Your task to perform on an android device: Is it going to rain this weekend? Image 0: 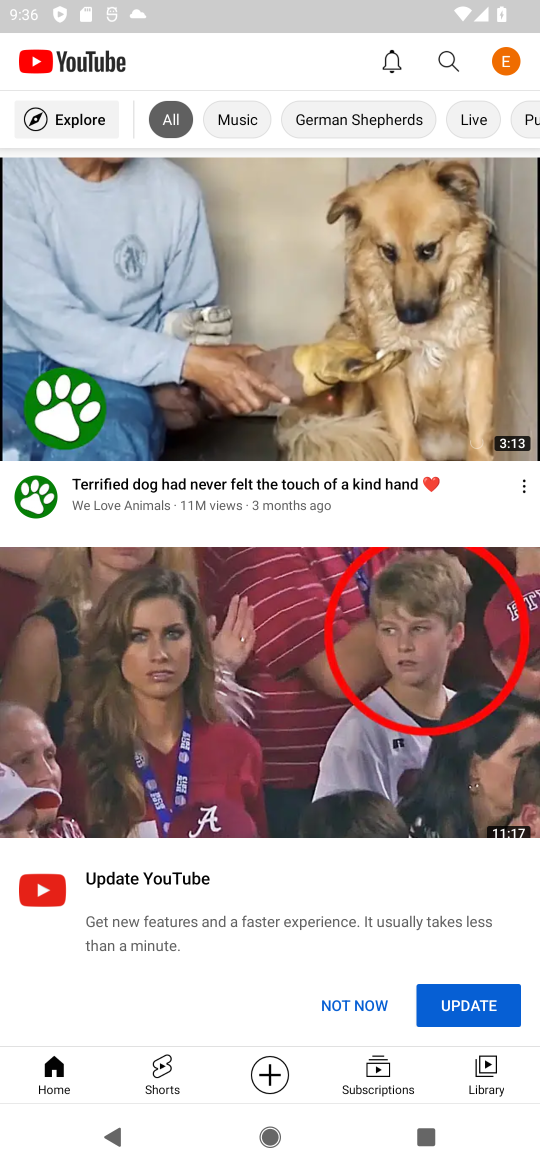
Step 0: press home button
Your task to perform on an android device: Is it going to rain this weekend? Image 1: 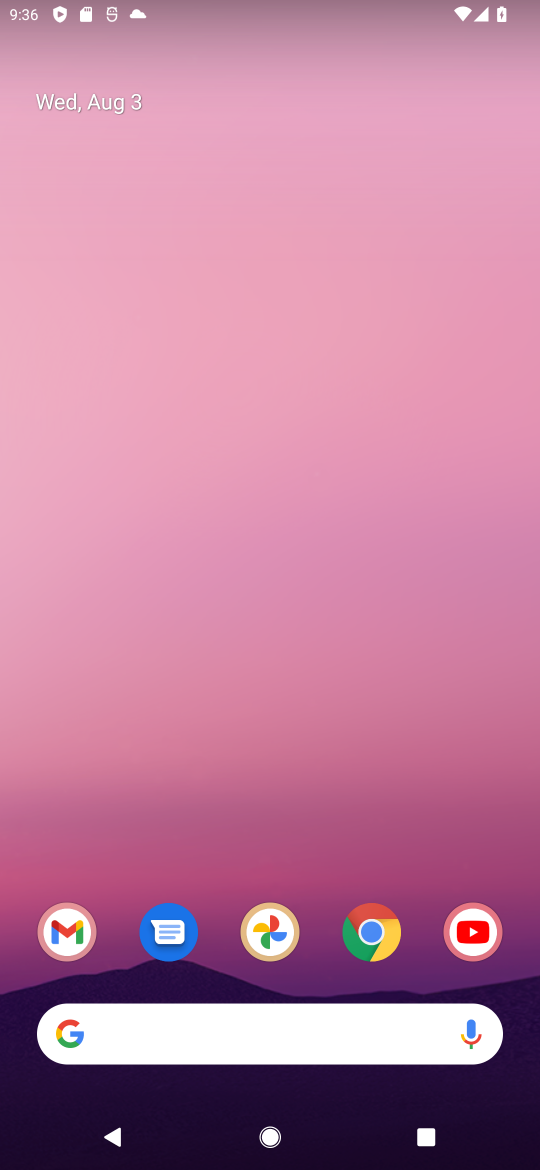
Step 1: drag from (319, 889) to (343, 49)
Your task to perform on an android device: Is it going to rain this weekend? Image 2: 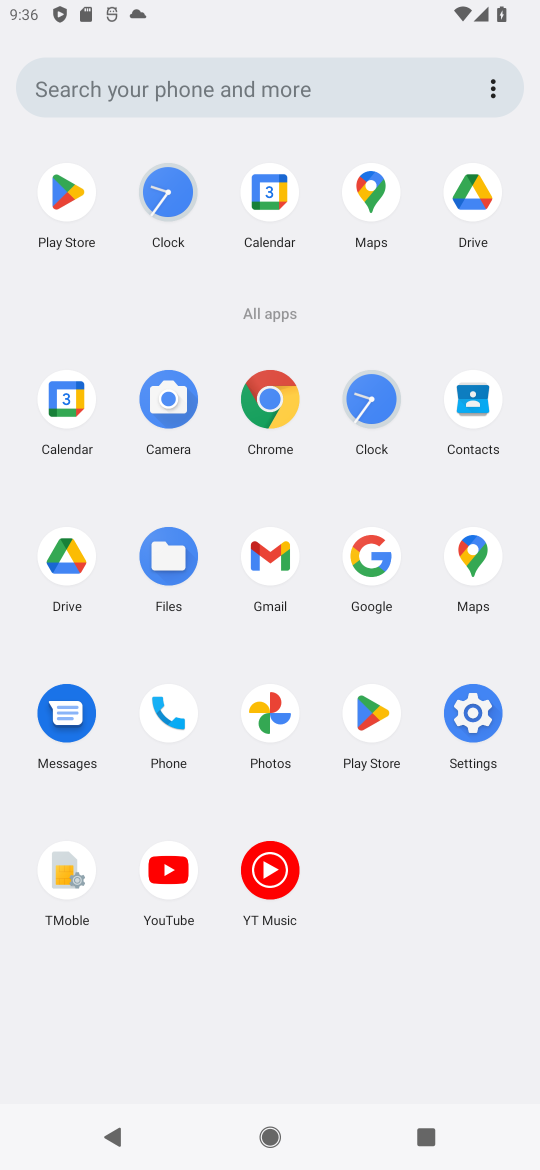
Step 2: click (282, 406)
Your task to perform on an android device: Is it going to rain this weekend? Image 3: 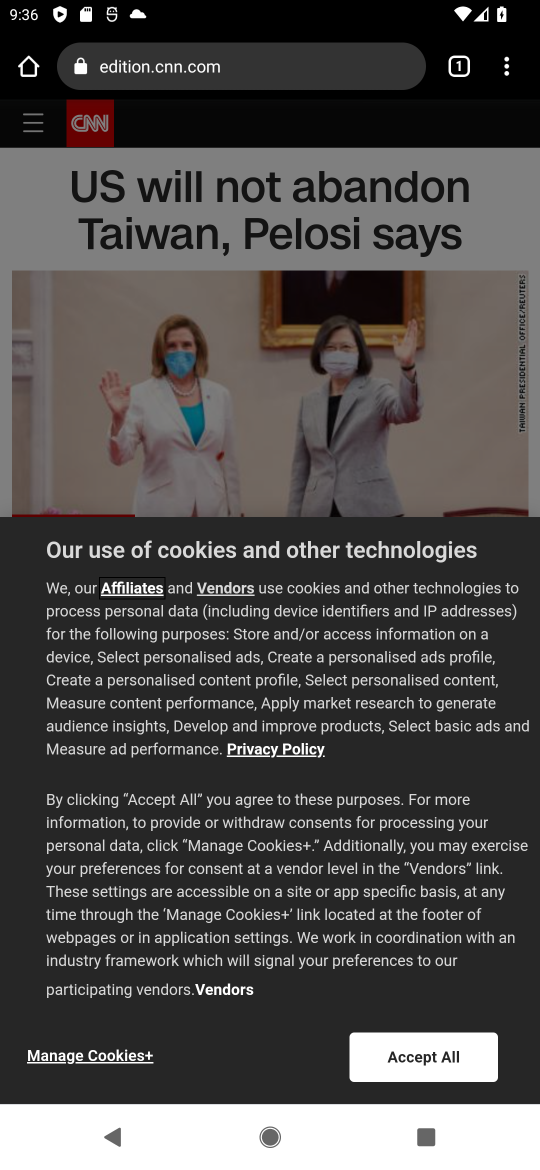
Step 3: click (323, 80)
Your task to perform on an android device: Is it going to rain this weekend? Image 4: 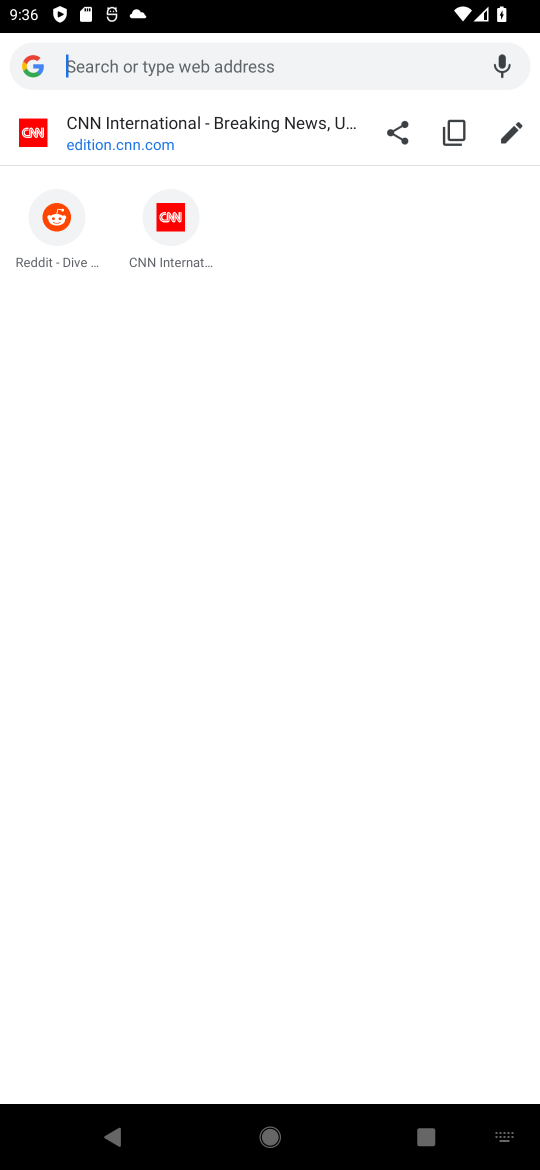
Step 4: type "Is it going to rain this weekend?"
Your task to perform on an android device: Is it going to rain this weekend? Image 5: 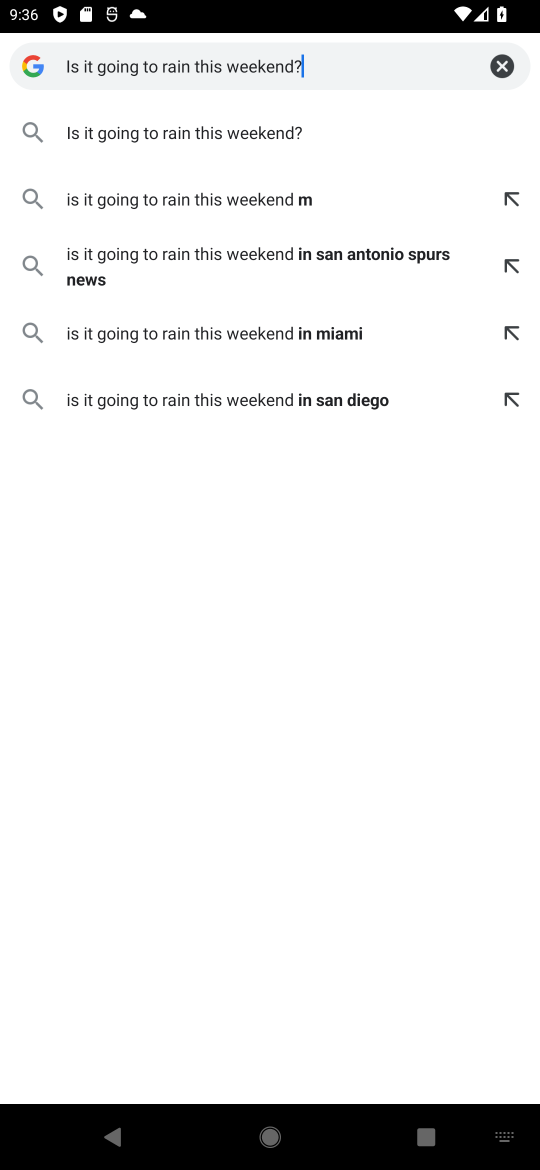
Step 5: click (315, 133)
Your task to perform on an android device: Is it going to rain this weekend? Image 6: 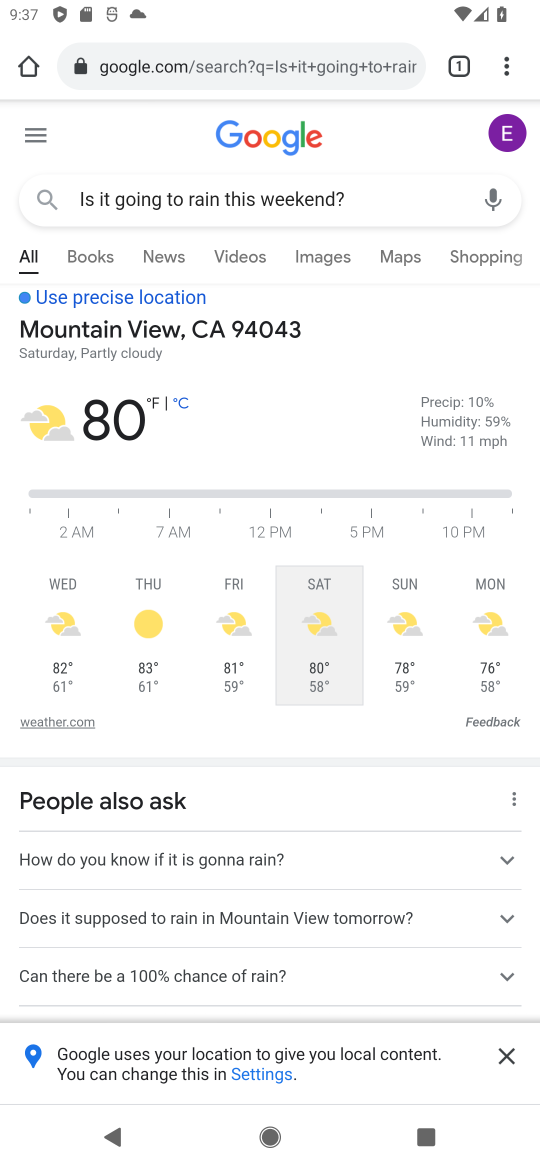
Step 6: task complete